Your task to perform on an android device: Search for "razer blade" on bestbuy.com, select the first entry, and add it to the cart. Image 0: 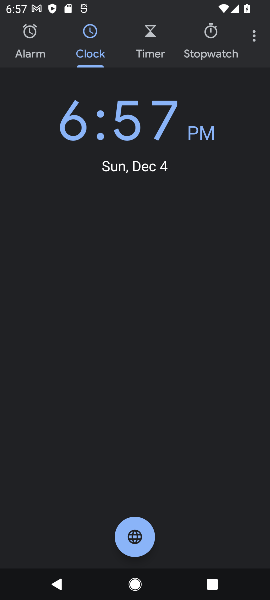
Step 0: press home button
Your task to perform on an android device: Search for "razer blade" on bestbuy.com, select the first entry, and add it to the cart. Image 1: 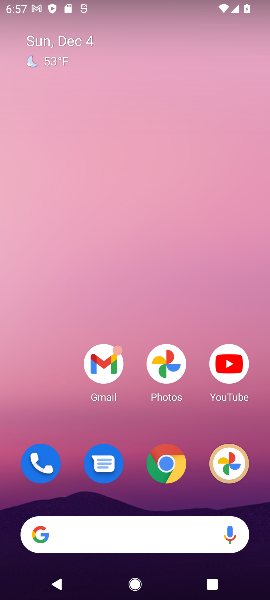
Step 1: click (108, 542)
Your task to perform on an android device: Search for "razer blade" on bestbuy.com, select the first entry, and add it to the cart. Image 2: 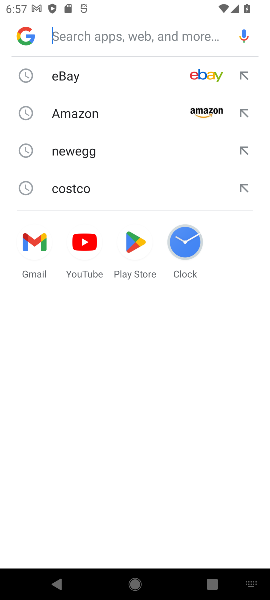
Step 2: type "bestbuy"
Your task to perform on an android device: Search for "razer blade" on bestbuy.com, select the first entry, and add it to the cart. Image 3: 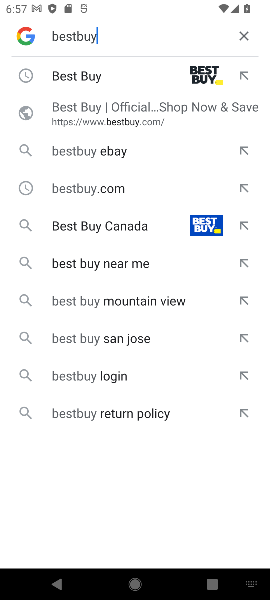
Step 3: click (156, 71)
Your task to perform on an android device: Search for "razer blade" on bestbuy.com, select the first entry, and add it to the cart. Image 4: 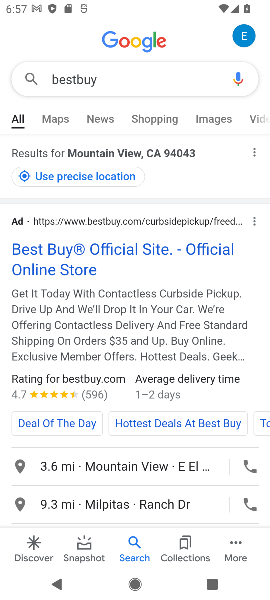
Step 4: click (87, 250)
Your task to perform on an android device: Search for "razer blade" on bestbuy.com, select the first entry, and add it to the cart. Image 5: 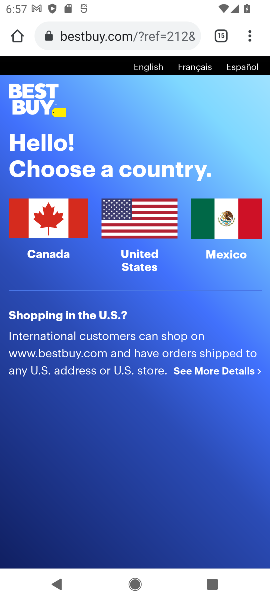
Step 5: click (44, 229)
Your task to perform on an android device: Search for "razer blade" on bestbuy.com, select the first entry, and add it to the cart. Image 6: 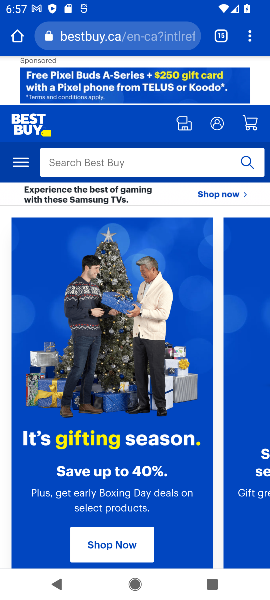
Step 6: click (91, 160)
Your task to perform on an android device: Search for "razer blade" on bestbuy.com, select the first entry, and add it to the cart. Image 7: 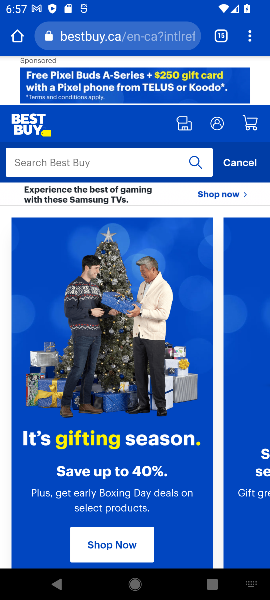
Step 7: type "razer blade"
Your task to perform on an android device: Search for "razer blade" on bestbuy.com, select the first entry, and add it to the cart. Image 8: 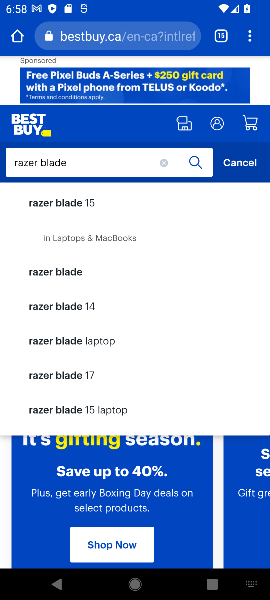
Step 8: click (93, 196)
Your task to perform on an android device: Search for "razer blade" on bestbuy.com, select the first entry, and add it to the cart. Image 9: 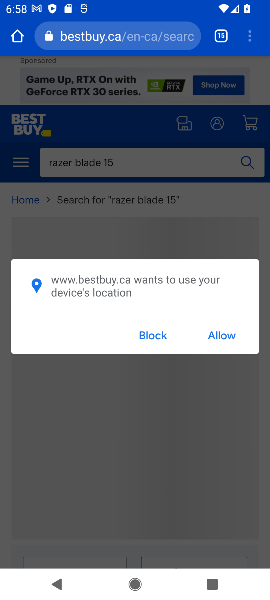
Step 9: click (148, 329)
Your task to perform on an android device: Search for "razer blade" on bestbuy.com, select the first entry, and add it to the cart. Image 10: 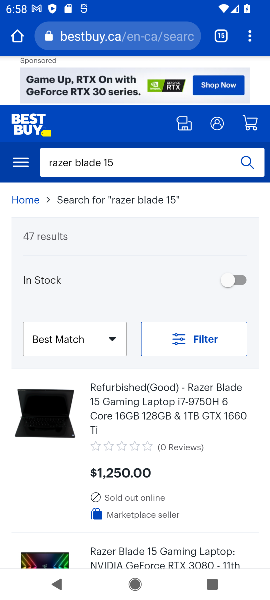
Step 10: drag from (223, 480) to (194, 410)
Your task to perform on an android device: Search for "razer blade" on bestbuy.com, select the first entry, and add it to the cart. Image 11: 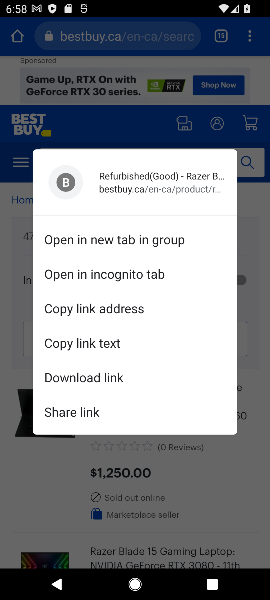
Step 11: click (64, 477)
Your task to perform on an android device: Search for "razer blade" on bestbuy.com, select the first entry, and add it to the cart. Image 12: 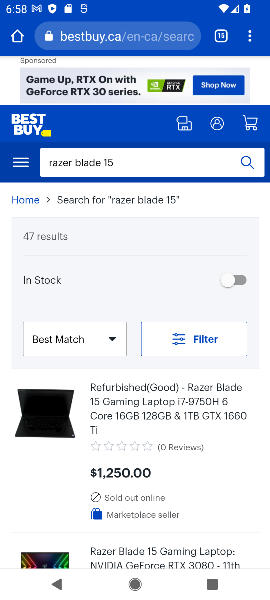
Step 12: task complete